Your task to perform on an android device: open app "Gboard" (install if not already installed) Image 0: 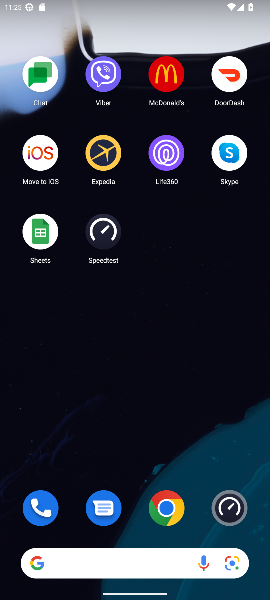
Step 0: drag from (95, 463) to (109, 63)
Your task to perform on an android device: open app "Gboard" (install if not already installed) Image 1: 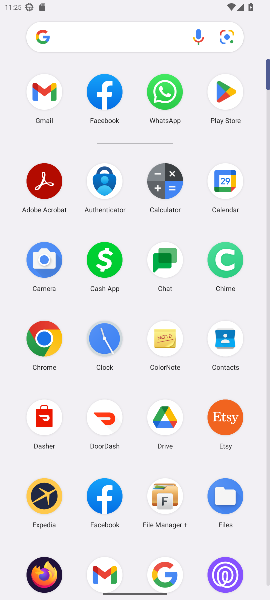
Step 1: click (216, 97)
Your task to perform on an android device: open app "Gboard" (install if not already installed) Image 2: 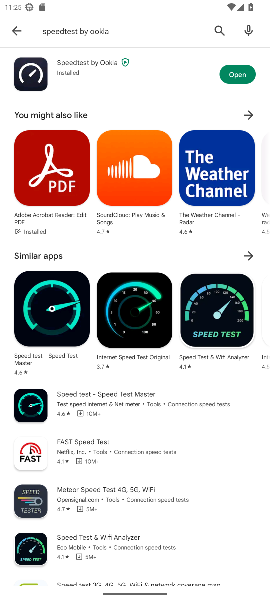
Step 2: click (216, 26)
Your task to perform on an android device: open app "Gboard" (install if not already installed) Image 3: 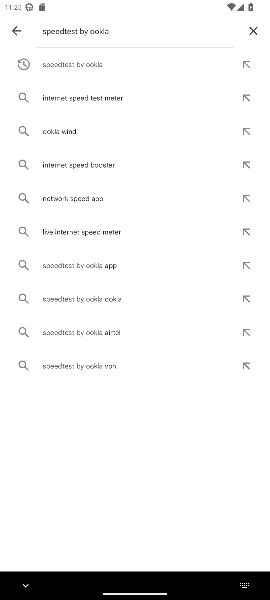
Step 3: click (249, 28)
Your task to perform on an android device: open app "Gboard" (install if not already installed) Image 4: 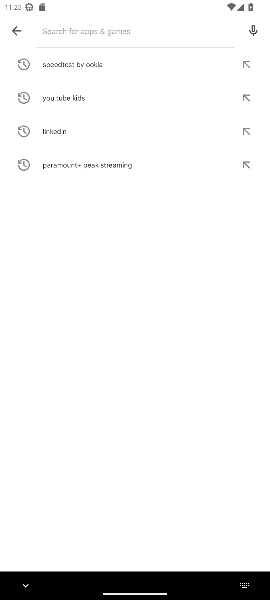
Step 4: type "gboard"
Your task to perform on an android device: open app "Gboard" (install if not already installed) Image 5: 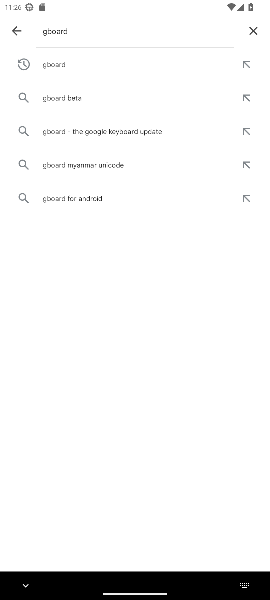
Step 5: click (68, 60)
Your task to perform on an android device: open app "Gboard" (install if not already installed) Image 6: 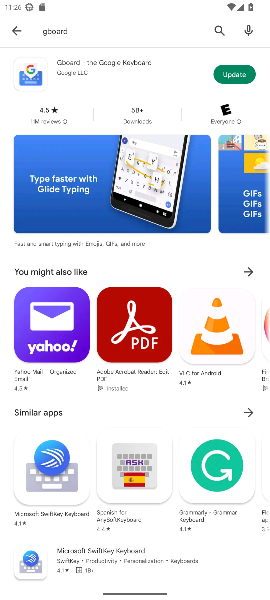
Step 6: task complete